Your task to perform on an android device: see tabs open on other devices in the chrome app Image 0: 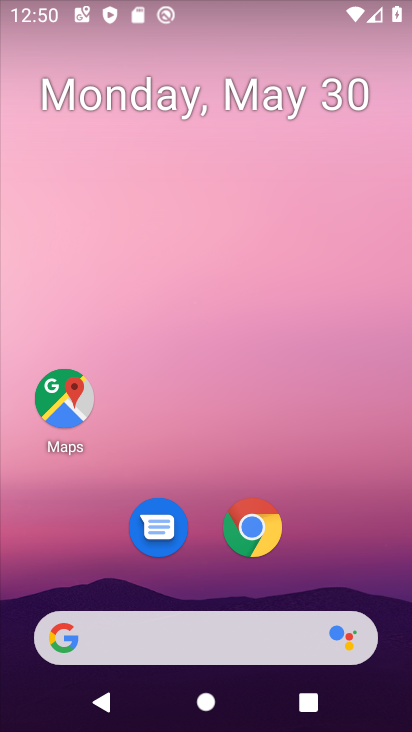
Step 0: drag from (227, 518) to (191, 233)
Your task to perform on an android device: see tabs open on other devices in the chrome app Image 1: 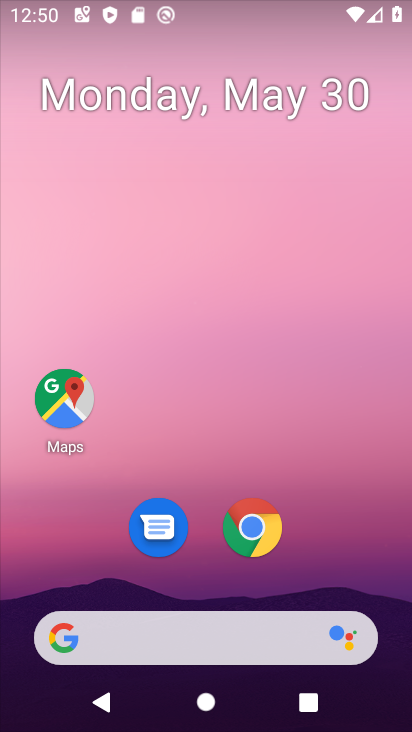
Step 1: drag from (194, 550) to (200, 240)
Your task to perform on an android device: see tabs open on other devices in the chrome app Image 2: 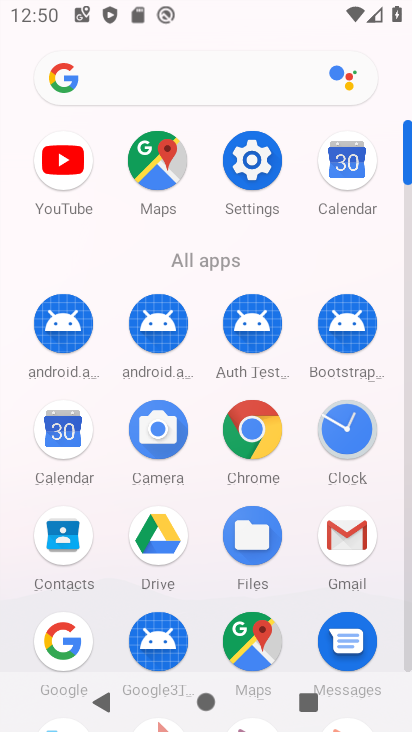
Step 2: drag from (212, 589) to (230, 212)
Your task to perform on an android device: see tabs open on other devices in the chrome app Image 3: 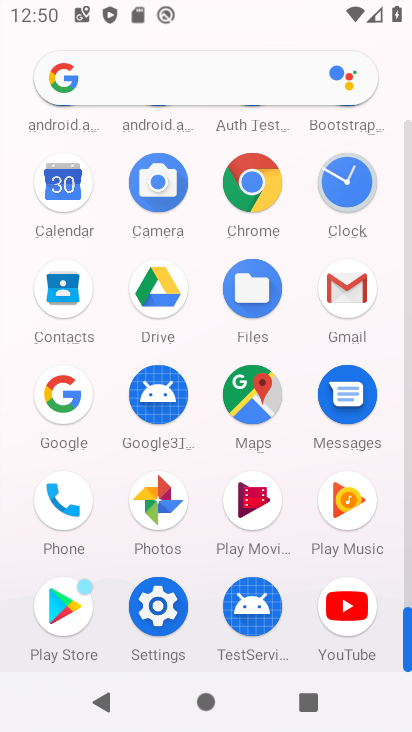
Step 3: click (250, 193)
Your task to perform on an android device: see tabs open on other devices in the chrome app Image 4: 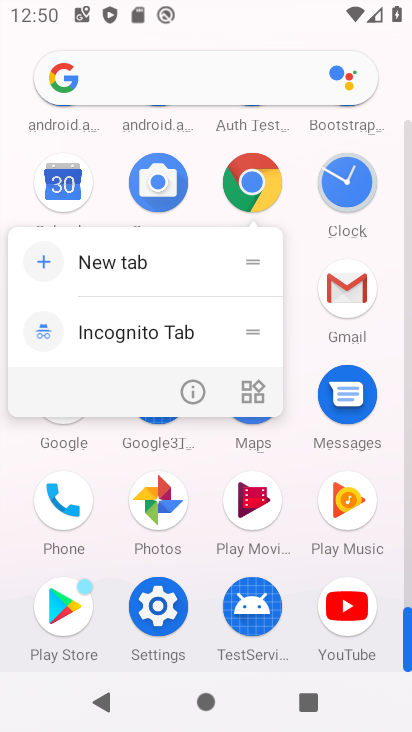
Step 4: click (207, 389)
Your task to perform on an android device: see tabs open on other devices in the chrome app Image 5: 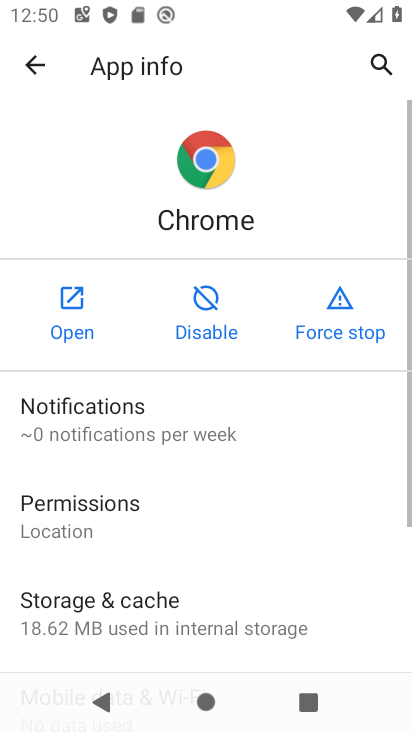
Step 5: click (78, 308)
Your task to perform on an android device: see tabs open on other devices in the chrome app Image 6: 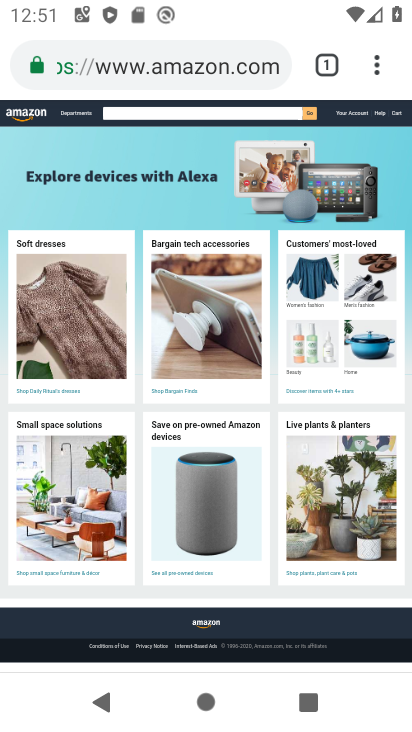
Step 6: task complete